Your task to perform on an android device: clear history in the chrome app Image 0: 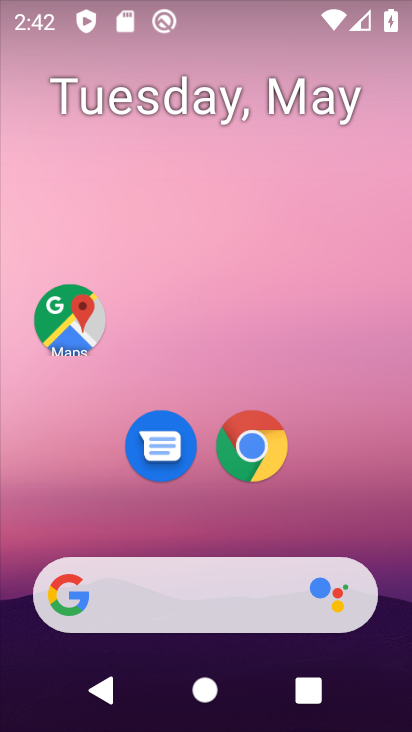
Step 0: click (249, 455)
Your task to perform on an android device: clear history in the chrome app Image 1: 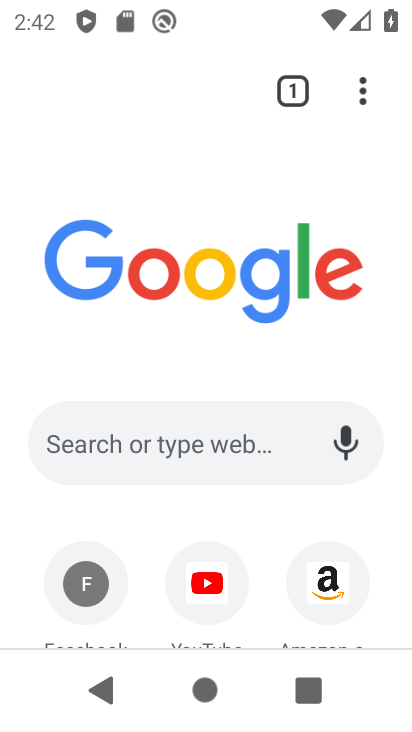
Step 1: click (368, 99)
Your task to perform on an android device: clear history in the chrome app Image 2: 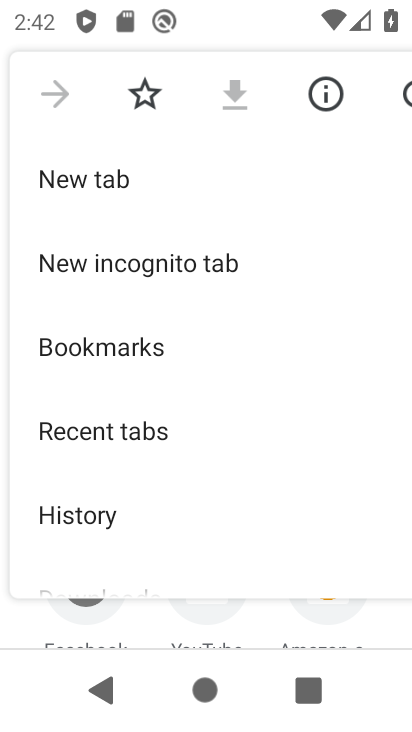
Step 2: click (107, 516)
Your task to perform on an android device: clear history in the chrome app Image 3: 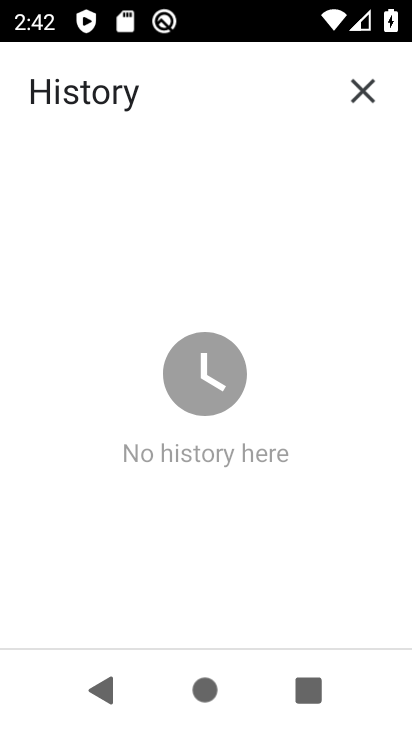
Step 3: task complete